Your task to perform on an android device: turn off notifications settings in the gmail app Image 0: 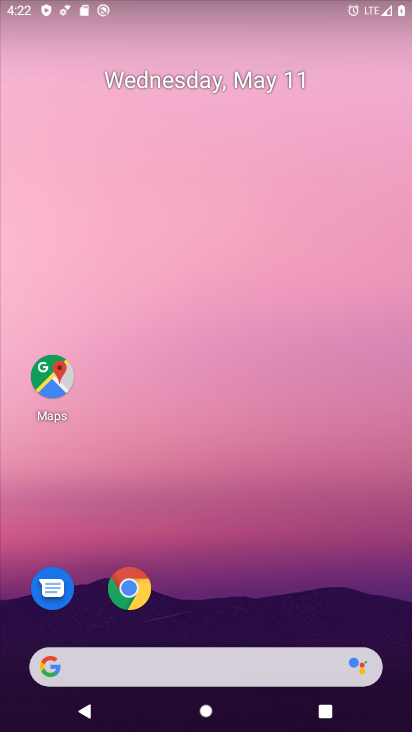
Step 0: drag from (277, 592) to (224, 226)
Your task to perform on an android device: turn off notifications settings in the gmail app Image 1: 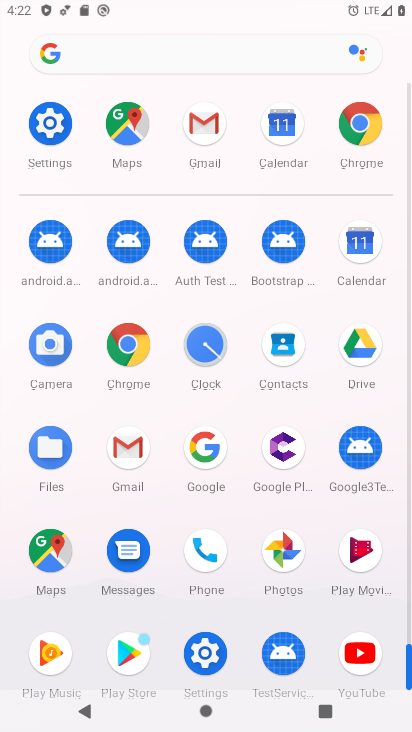
Step 1: click (187, 137)
Your task to perform on an android device: turn off notifications settings in the gmail app Image 2: 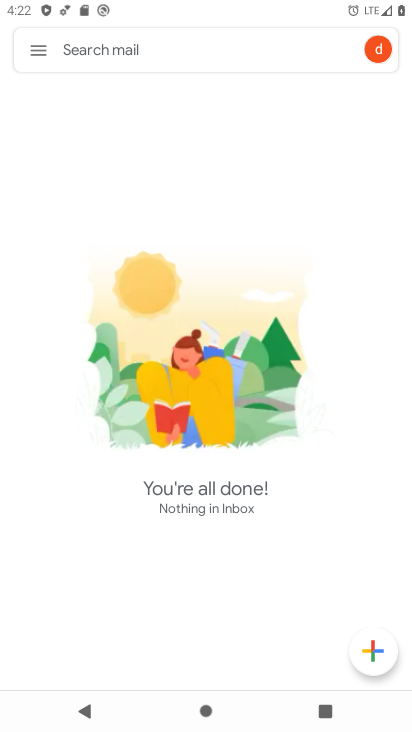
Step 2: click (38, 53)
Your task to perform on an android device: turn off notifications settings in the gmail app Image 3: 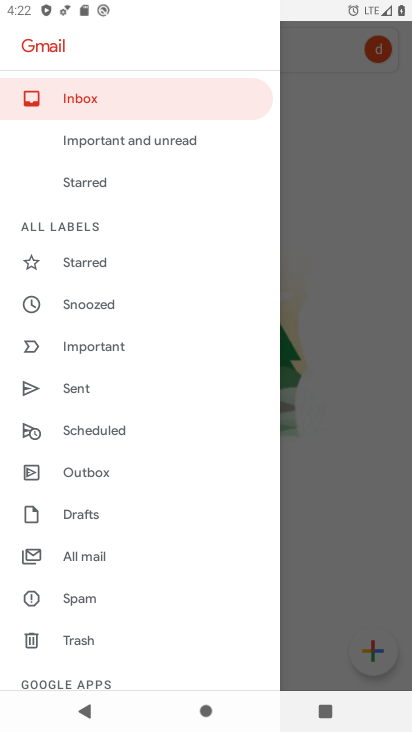
Step 3: drag from (78, 651) to (91, 283)
Your task to perform on an android device: turn off notifications settings in the gmail app Image 4: 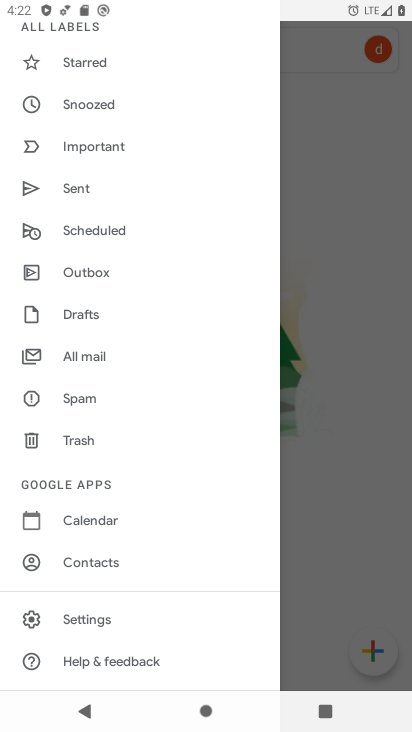
Step 4: click (85, 609)
Your task to perform on an android device: turn off notifications settings in the gmail app Image 5: 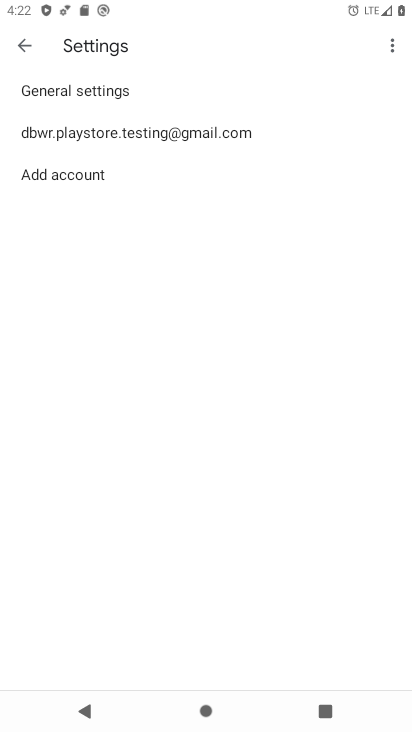
Step 5: click (70, 147)
Your task to perform on an android device: turn off notifications settings in the gmail app Image 6: 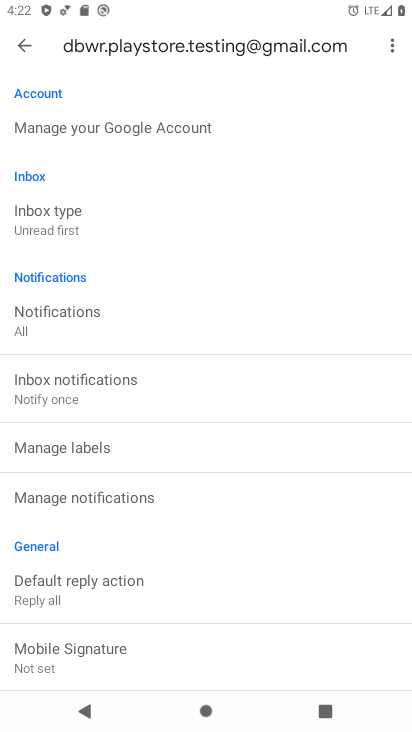
Step 6: click (71, 332)
Your task to perform on an android device: turn off notifications settings in the gmail app Image 7: 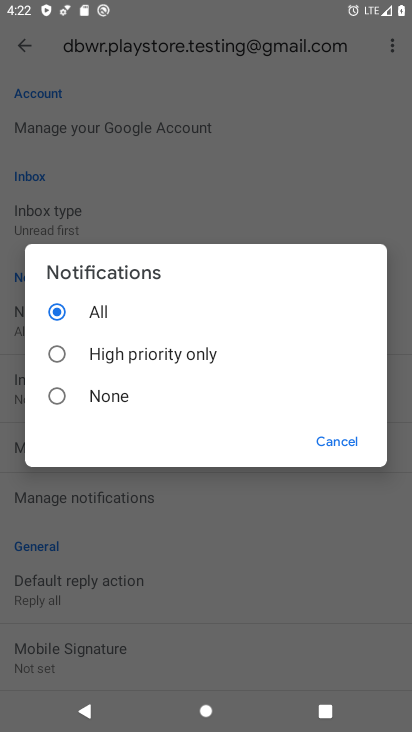
Step 7: click (54, 396)
Your task to perform on an android device: turn off notifications settings in the gmail app Image 8: 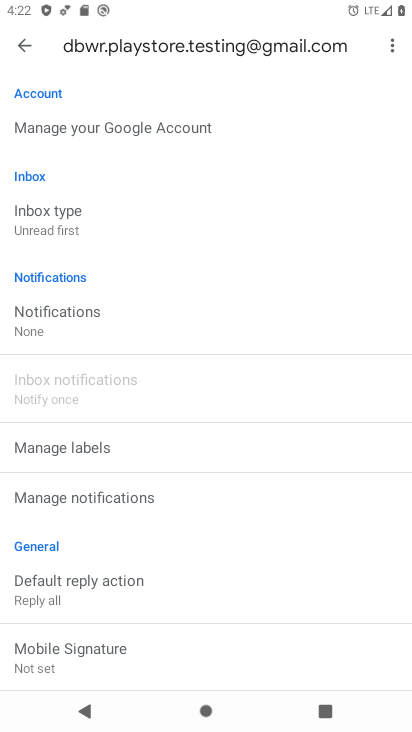
Step 8: task complete